Your task to perform on an android device: read, delete, or share a saved page in the chrome app Image 0: 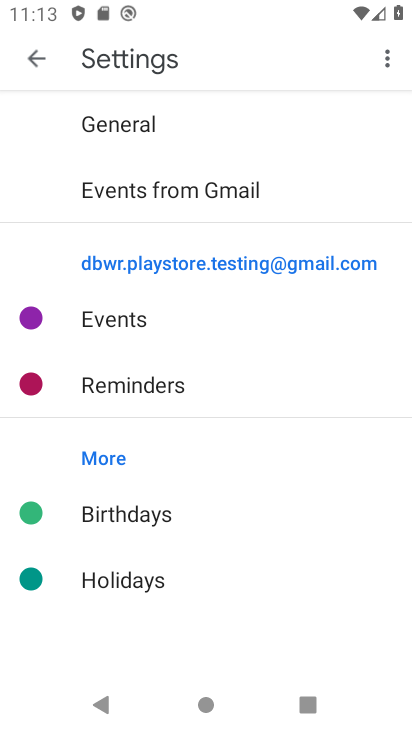
Step 0: press home button
Your task to perform on an android device: read, delete, or share a saved page in the chrome app Image 1: 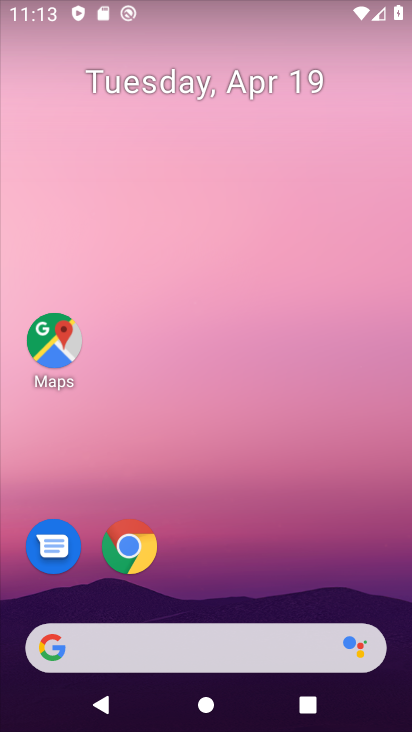
Step 1: click (139, 553)
Your task to perform on an android device: read, delete, or share a saved page in the chrome app Image 2: 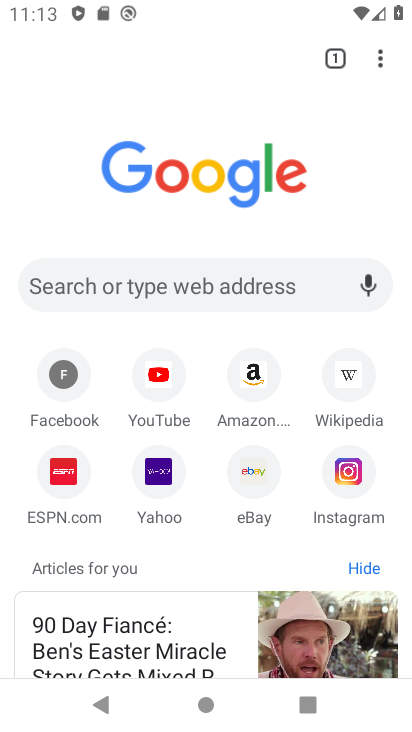
Step 2: click (381, 58)
Your task to perform on an android device: read, delete, or share a saved page in the chrome app Image 3: 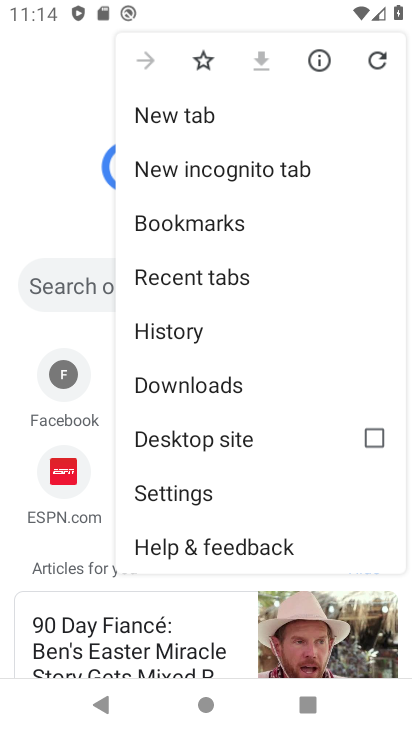
Step 3: click (194, 491)
Your task to perform on an android device: read, delete, or share a saved page in the chrome app Image 4: 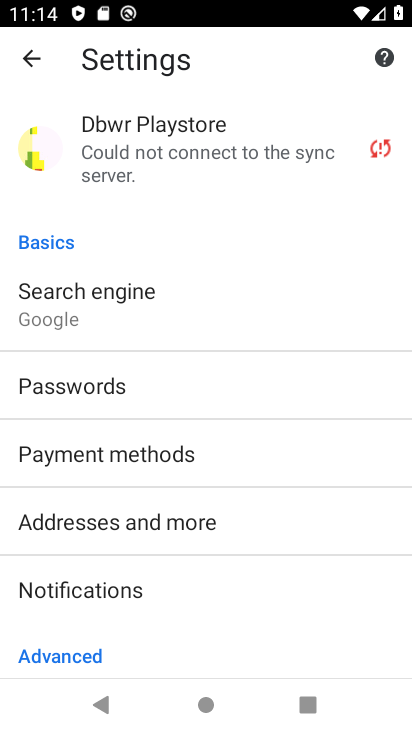
Step 4: click (21, 67)
Your task to perform on an android device: read, delete, or share a saved page in the chrome app Image 5: 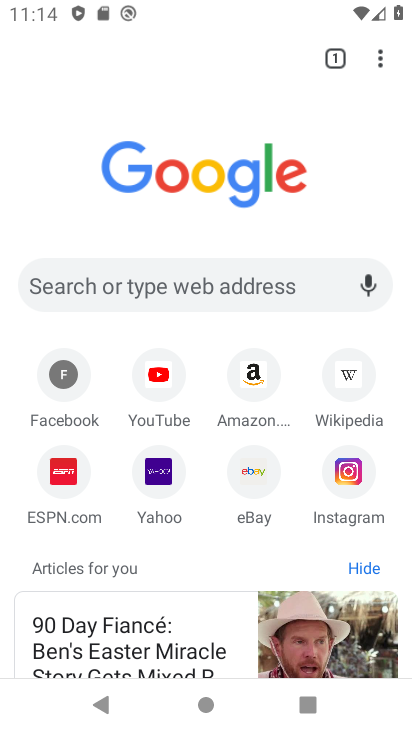
Step 5: click (393, 53)
Your task to perform on an android device: read, delete, or share a saved page in the chrome app Image 6: 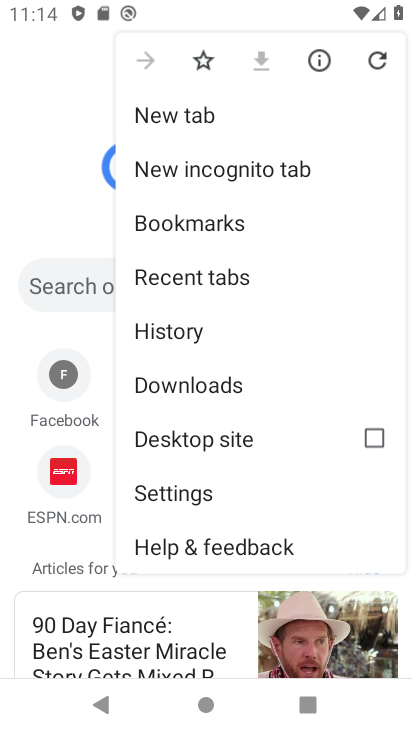
Step 6: click (202, 492)
Your task to perform on an android device: read, delete, or share a saved page in the chrome app Image 7: 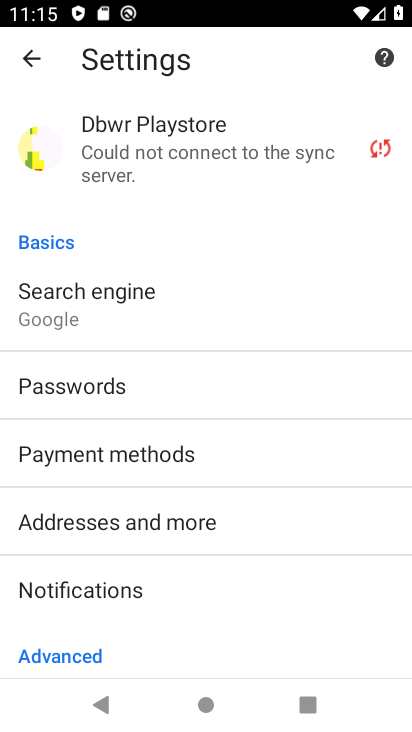
Step 7: task complete